Your task to perform on an android device: turn on improve location accuracy Image 0: 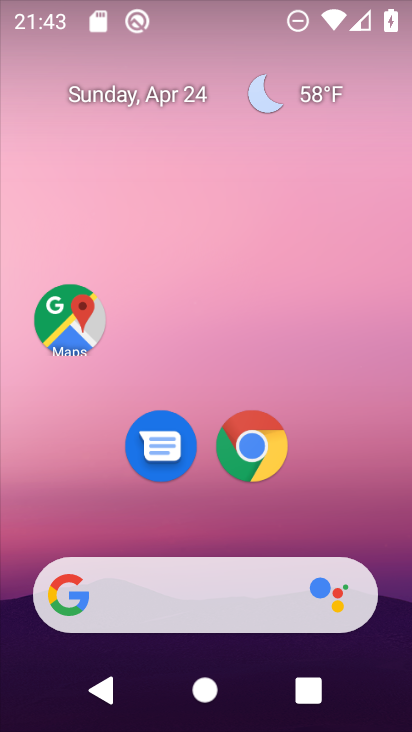
Step 0: drag from (200, 601) to (344, 65)
Your task to perform on an android device: turn on improve location accuracy Image 1: 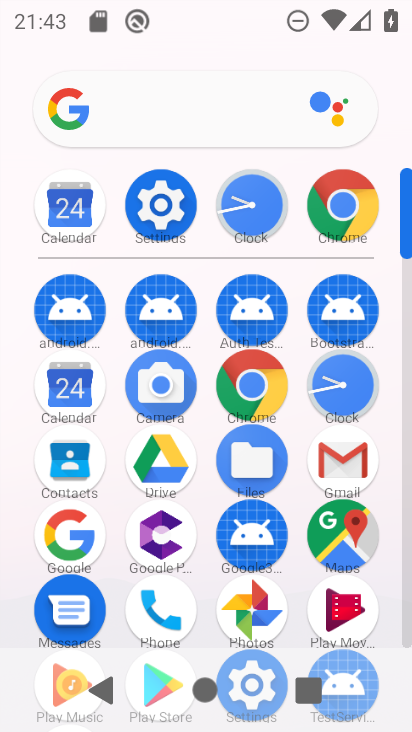
Step 1: click (164, 218)
Your task to perform on an android device: turn on improve location accuracy Image 2: 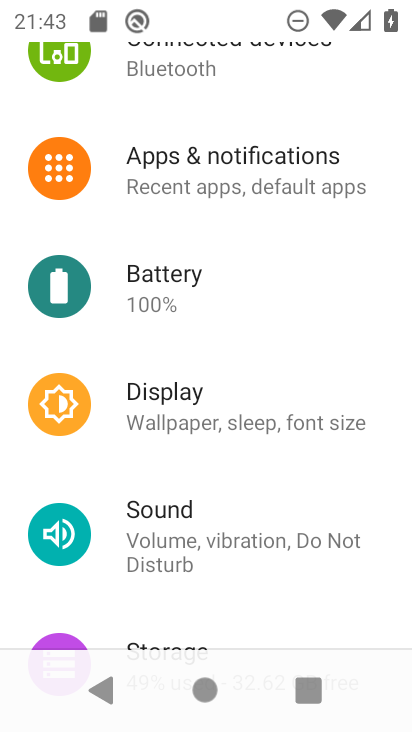
Step 2: drag from (183, 587) to (263, 33)
Your task to perform on an android device: turn on improve location accuracy Image 3: 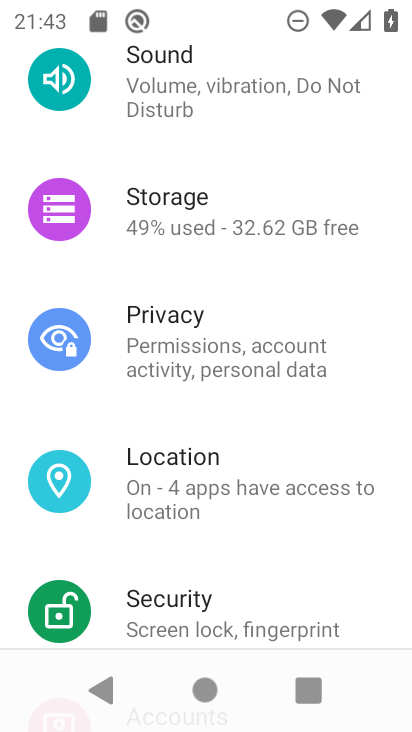
Step 3: click (198, 482)
Your task to perform on an android device: turn on improve location accuracy Image 4: 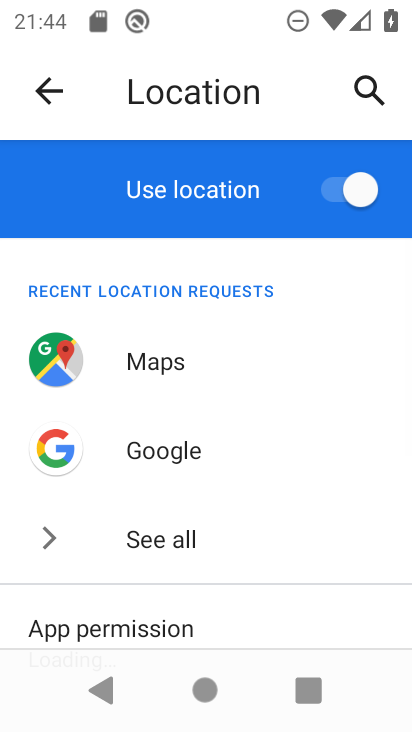
Step 4: drag from (239, 603) to (270, 90)
Your task to perform on an android device: turn on improve location accuracy Image 5: 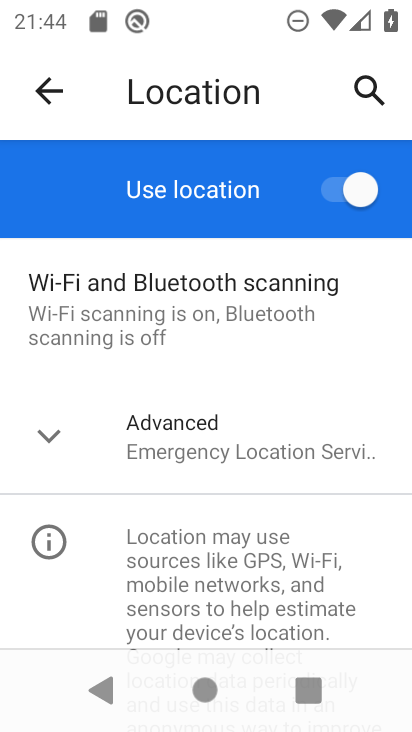
Step 5: click (143, 424)
Your task to perform on an android device: turn on improve location accuracy Image 6: 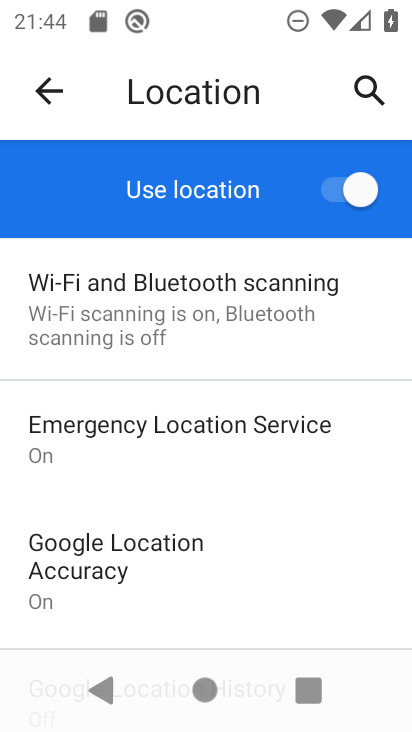
Step 6: click (126, 572)
Your task to perform on an android device: turn on improve location accuracy Image 7: 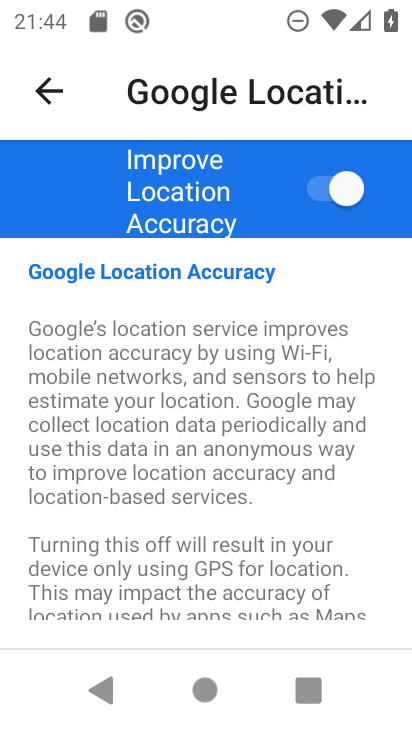
Step 7: task complete